Your task to perform on an android device: install app "Google Play services" Image 0: 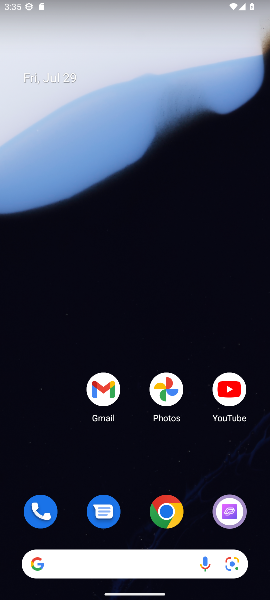
Step 0: drag from (20, 578) to (268, 332)
Your task to perform on an android device: install app "Google Play services" Image 1: 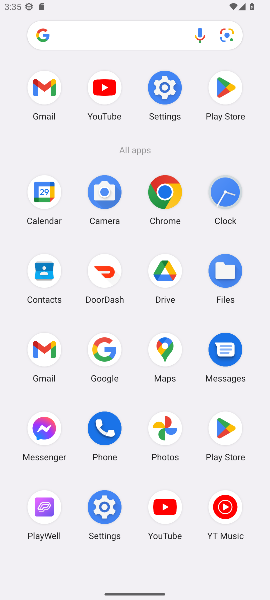
Step 1: click (221, 428)
Your task to perform on an android device: install app "Google Play services" Image 2: 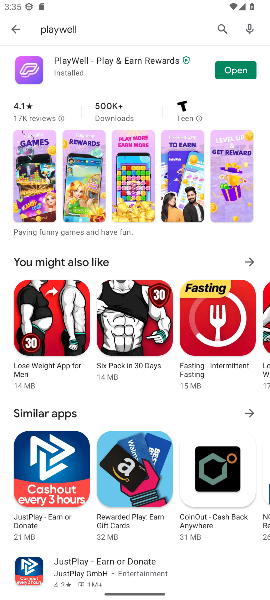
Step 2: click (21, 29)
Your task to perform on an android device: install app "Google Play services" Image 3: 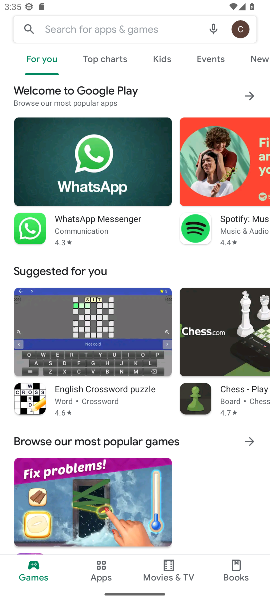
Step 3: click (55, 33)
Your task to perform on an android device: install app "Google Play services" Image 4: 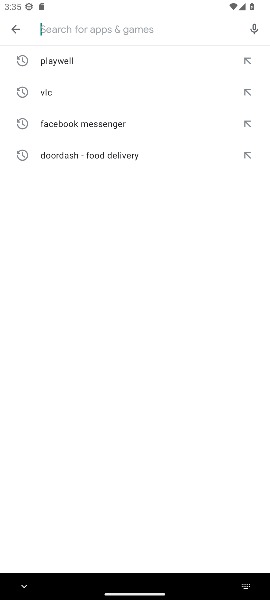
Step 4: type "Google Play services"
Your task to perform on an android device: install app "Google Play services" Image 5: 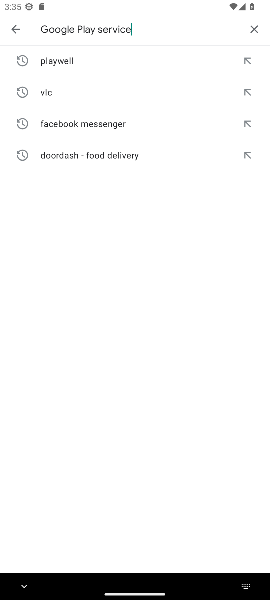
Step 5: type ""
Your task to perform on an android device: install app "Google Play services" Image 6: 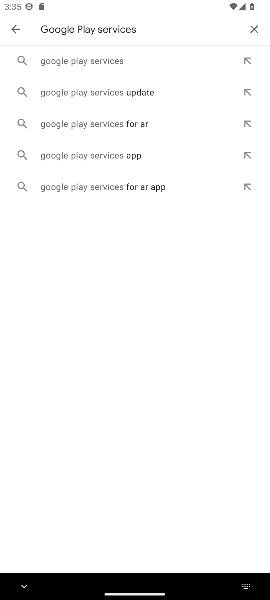
Step 6: click (70, 61)
Your task to perform on an android device: install app "Google Play services" Image 7: 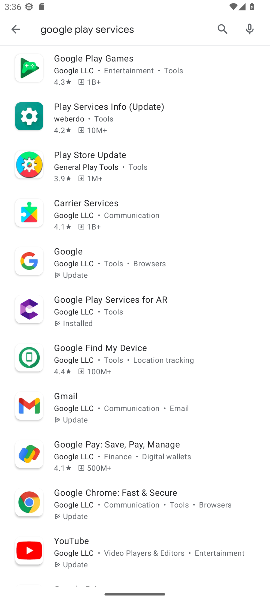
Step 7: click (82, 315)
Your task to perform on an android device: install app "Google Play services" Image 8: 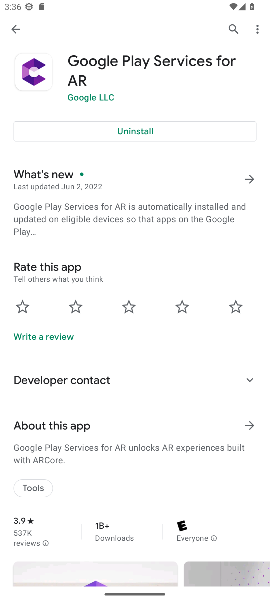
Step 8: task complete